Your task to perform on an android device: Show the shopping cart on costco. Add razer kraken to the cart on costco Image 0: 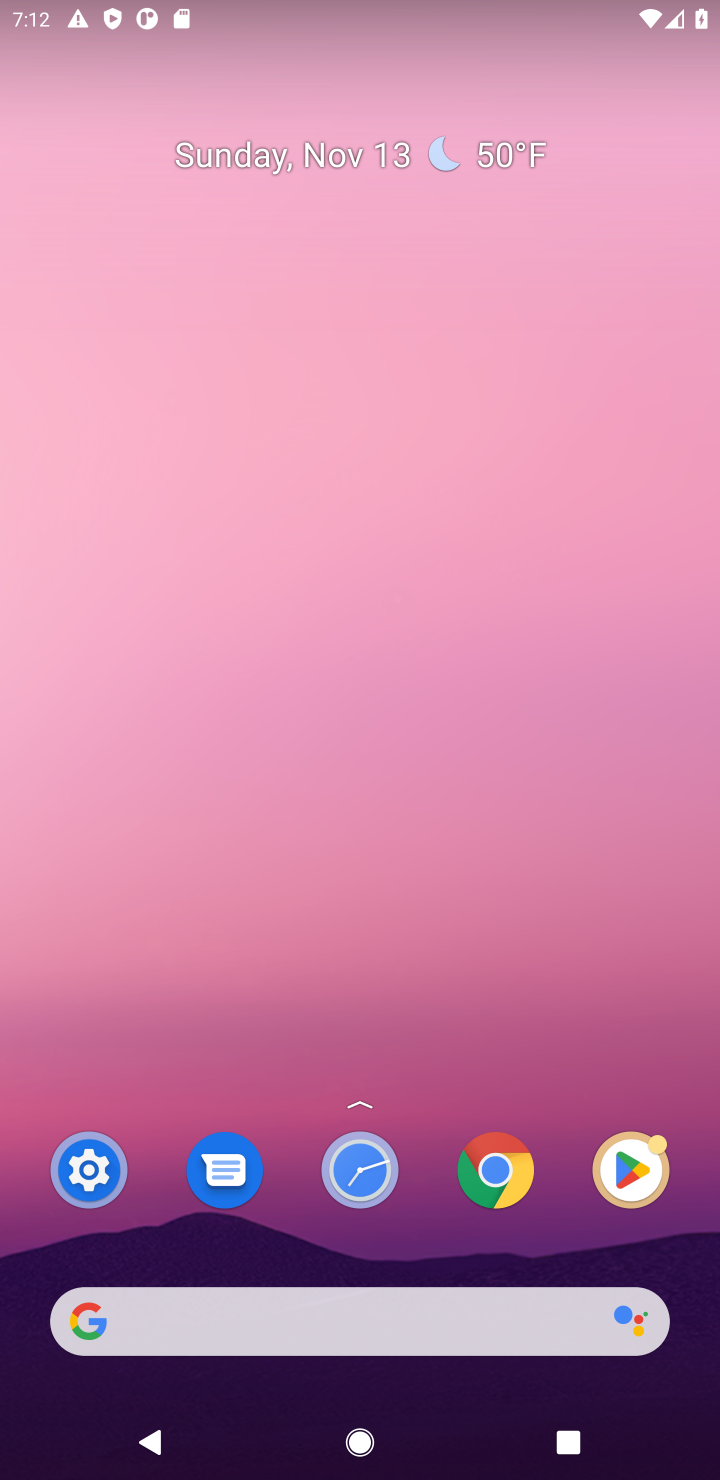
Step 0: type "target"
Your task to perform on an android device: Show the shopping cart on costco. Add razer kraken to the cart on costco Image 1: 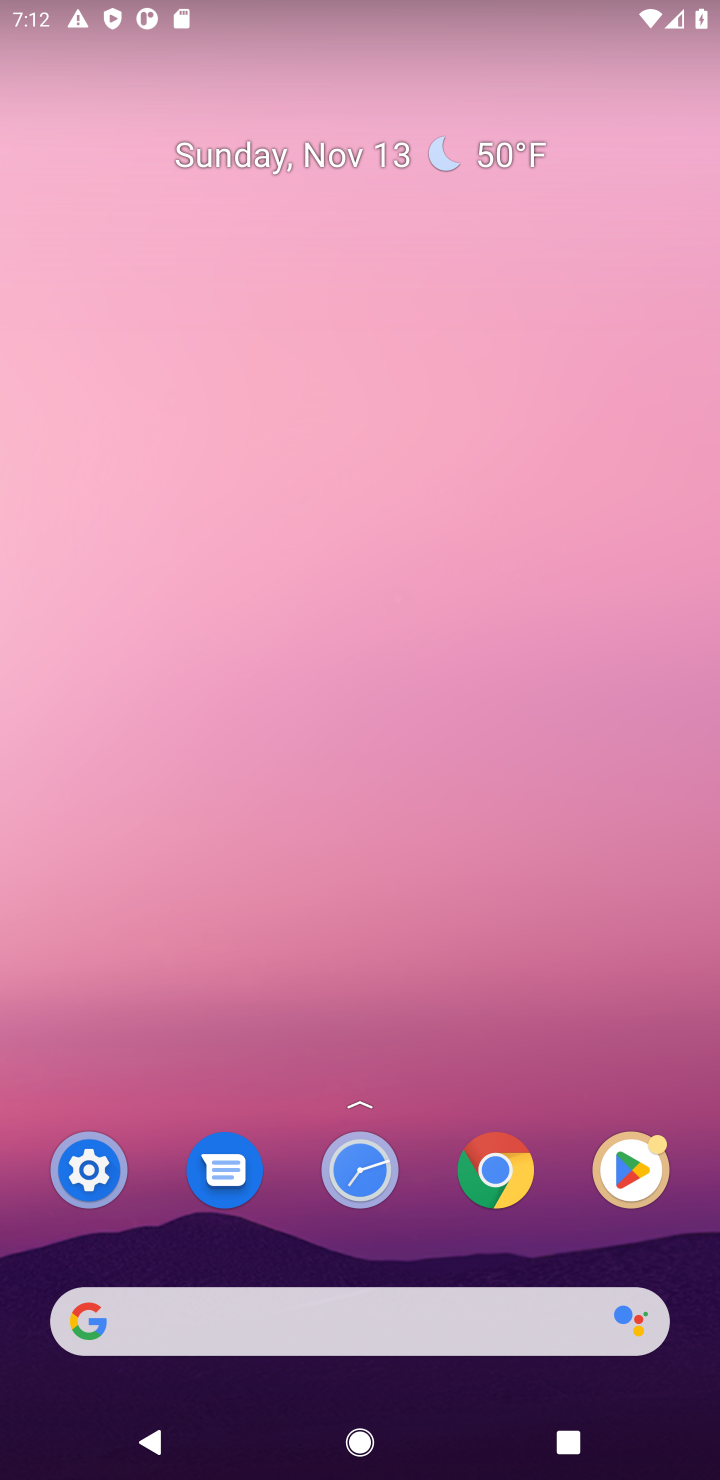
Step 1: click (315, 1314)
Your task to perform on an android device: Show the shopping cart on costco. Add razer kraken to the cart on costco Image 2: 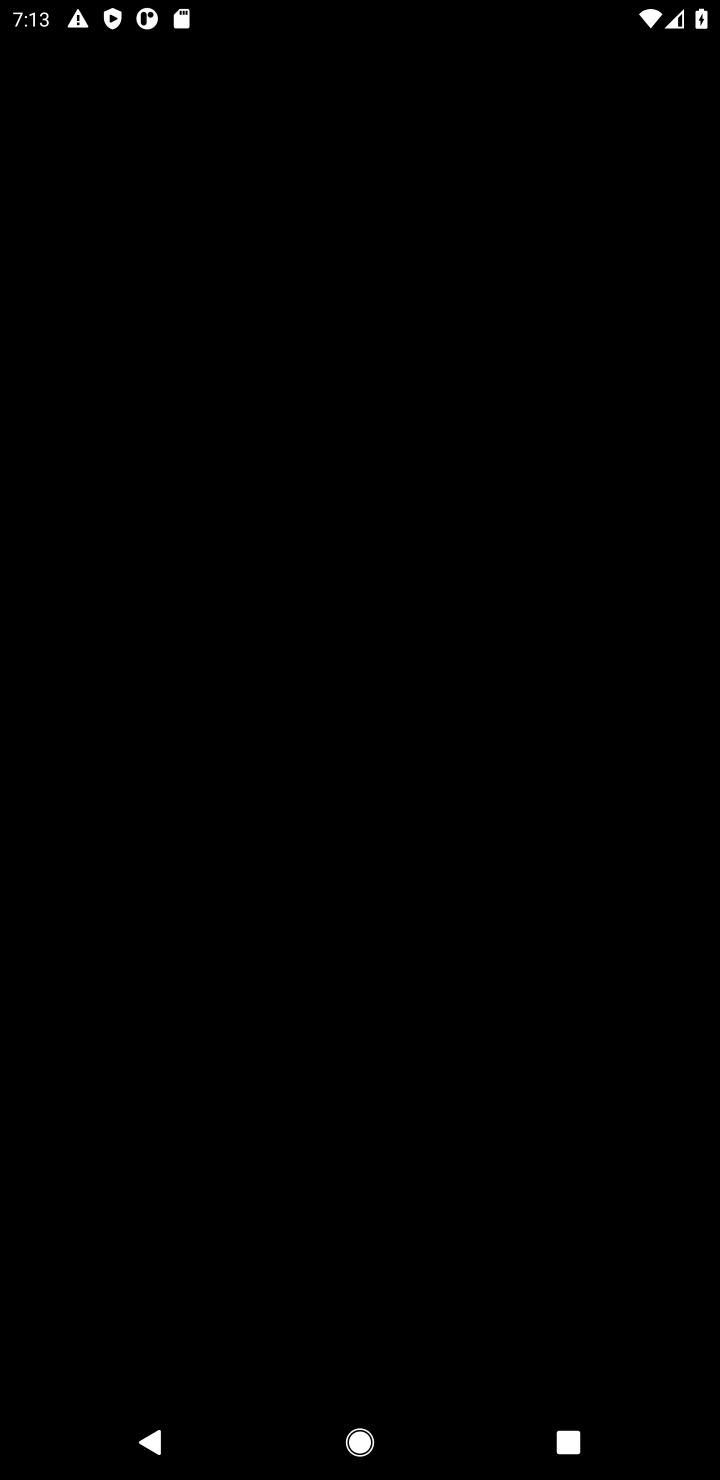
Step 2: press home button
Your task to perform on an android device: Show the shopping cart on costco. Add razer kraken to the cart on costco Image 3: 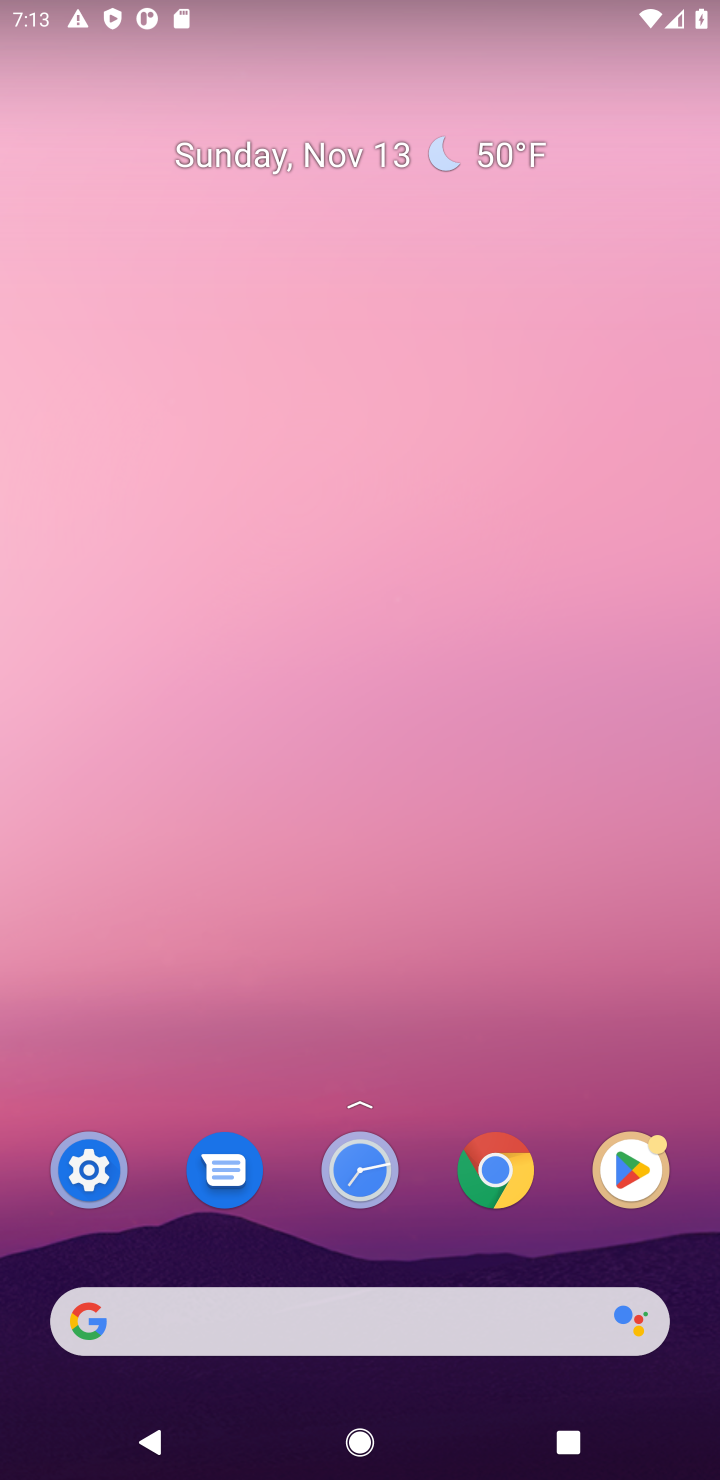
Step 3: click (512, 1320)
Your task to perform on an android device: Show the shopping cart on costco. Add razer kraken to the cart on costco Image 4: 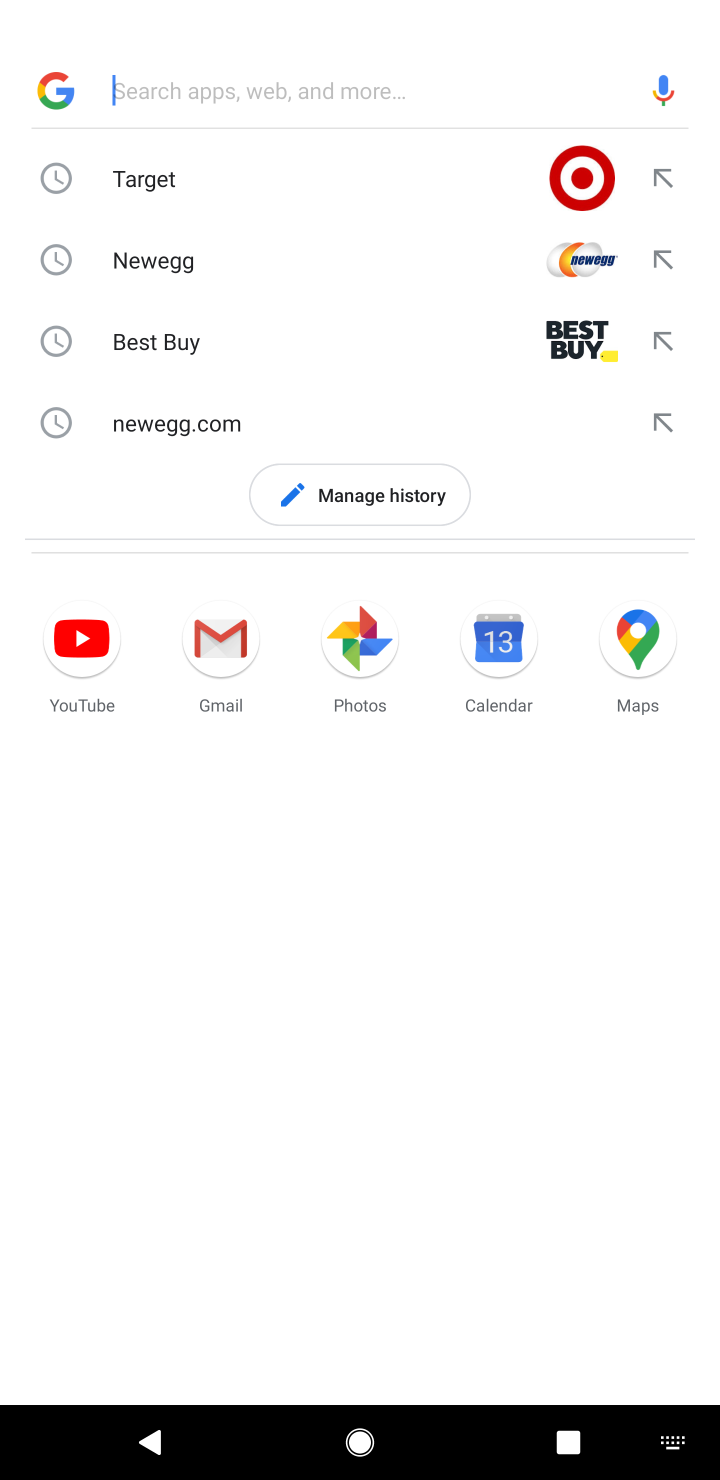
Step 4: type "target"
Your task to perform on an android device: Show the shopping cart on costco. Add razer kraken to the cart on costco Image 5: 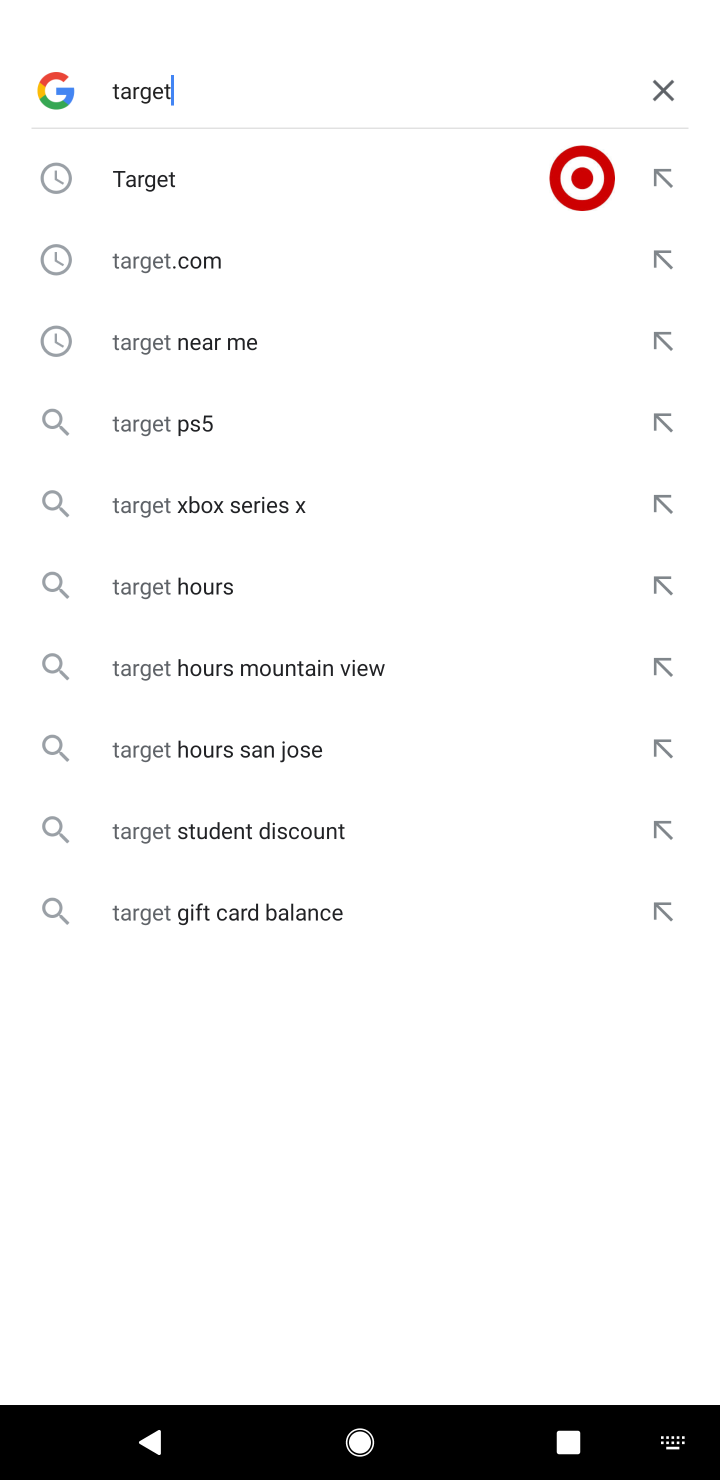
Step 5: click (335, 187)
Your task to perform on an android device: Show the shopping cart on costco. Add razer kraken to the cart on costco Image 6: 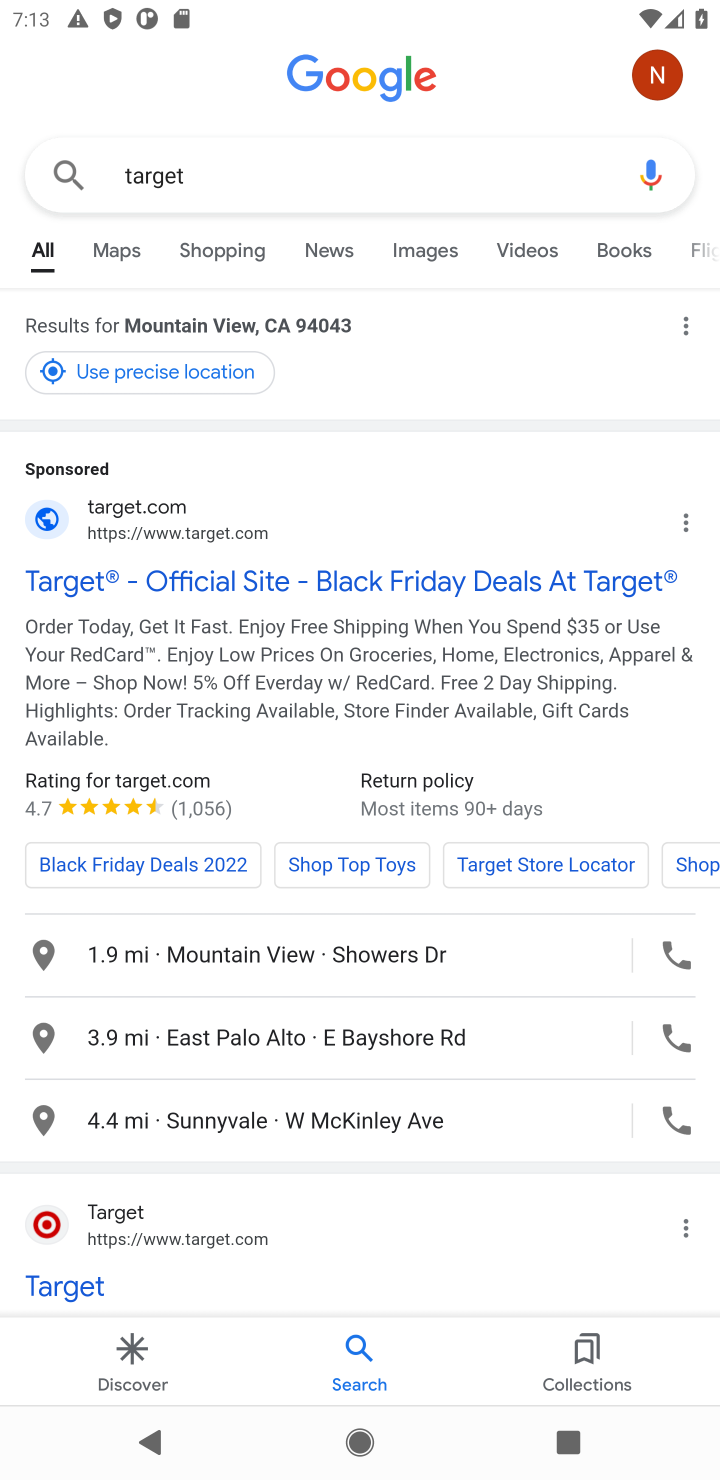
Step 6: click (287, 576)
Your task to perform on an android device: Show the shopping cart on costco. Add razer kraken to the cart on costco Image 7: 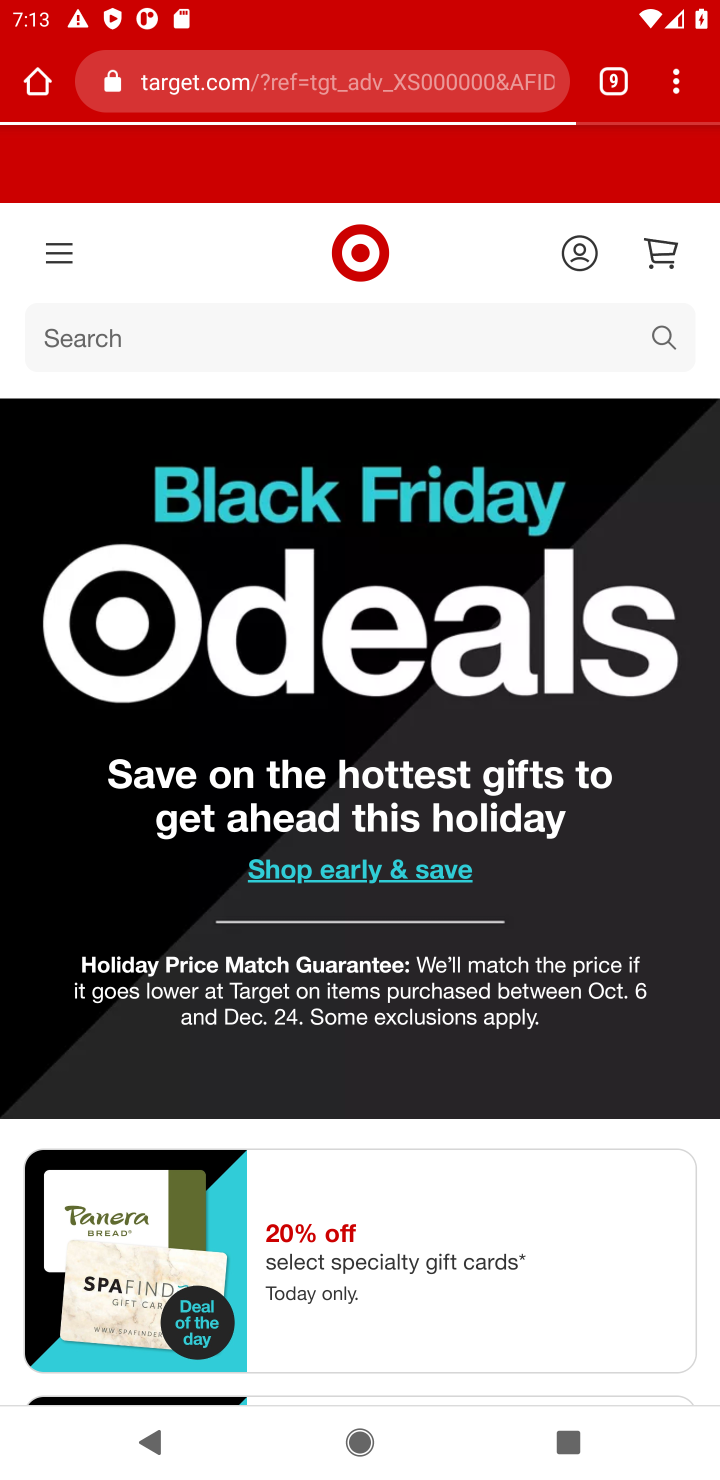
Step 7: task complete